Your task to perform on an android device: make emails show in primary in the gmail app Image 0: 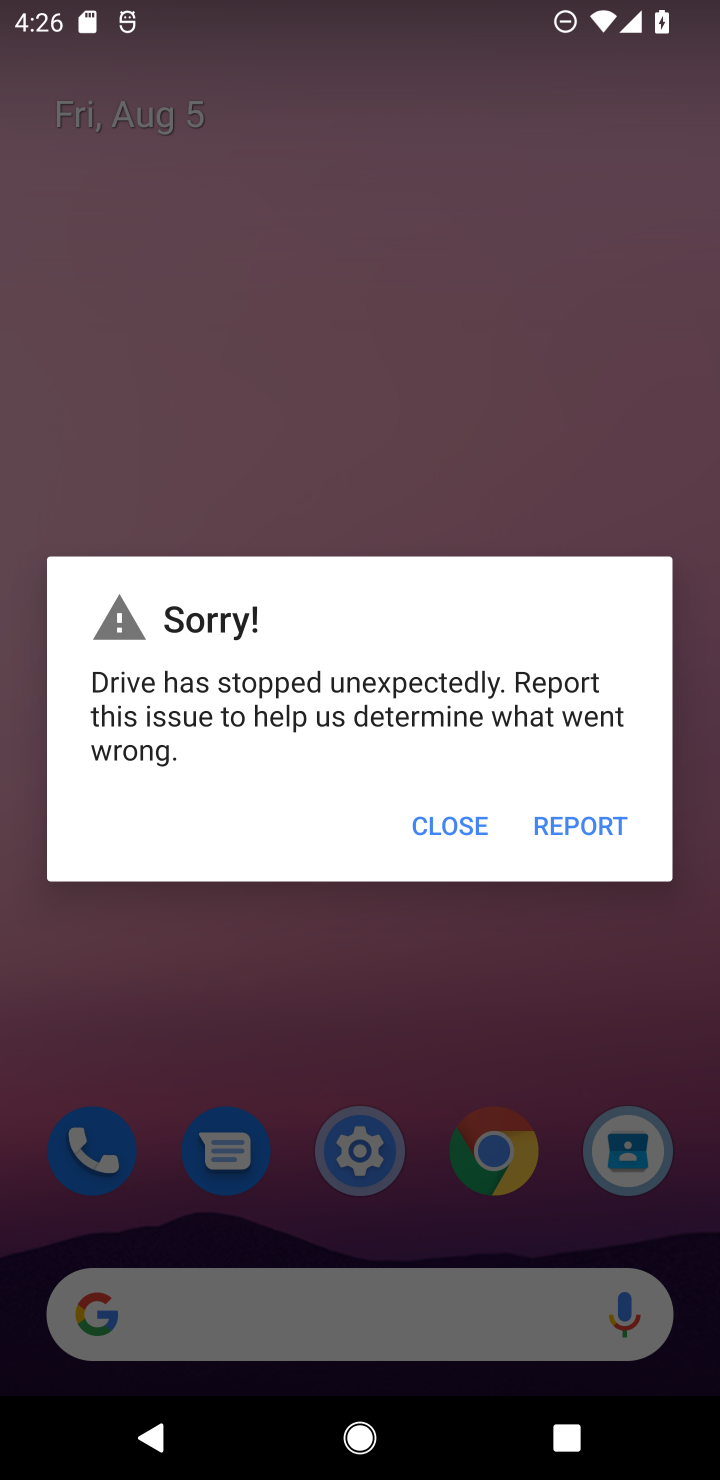
Step 0: press home button
Your task to perform on an android device: make emails show in primary in the gmail app Image 1: 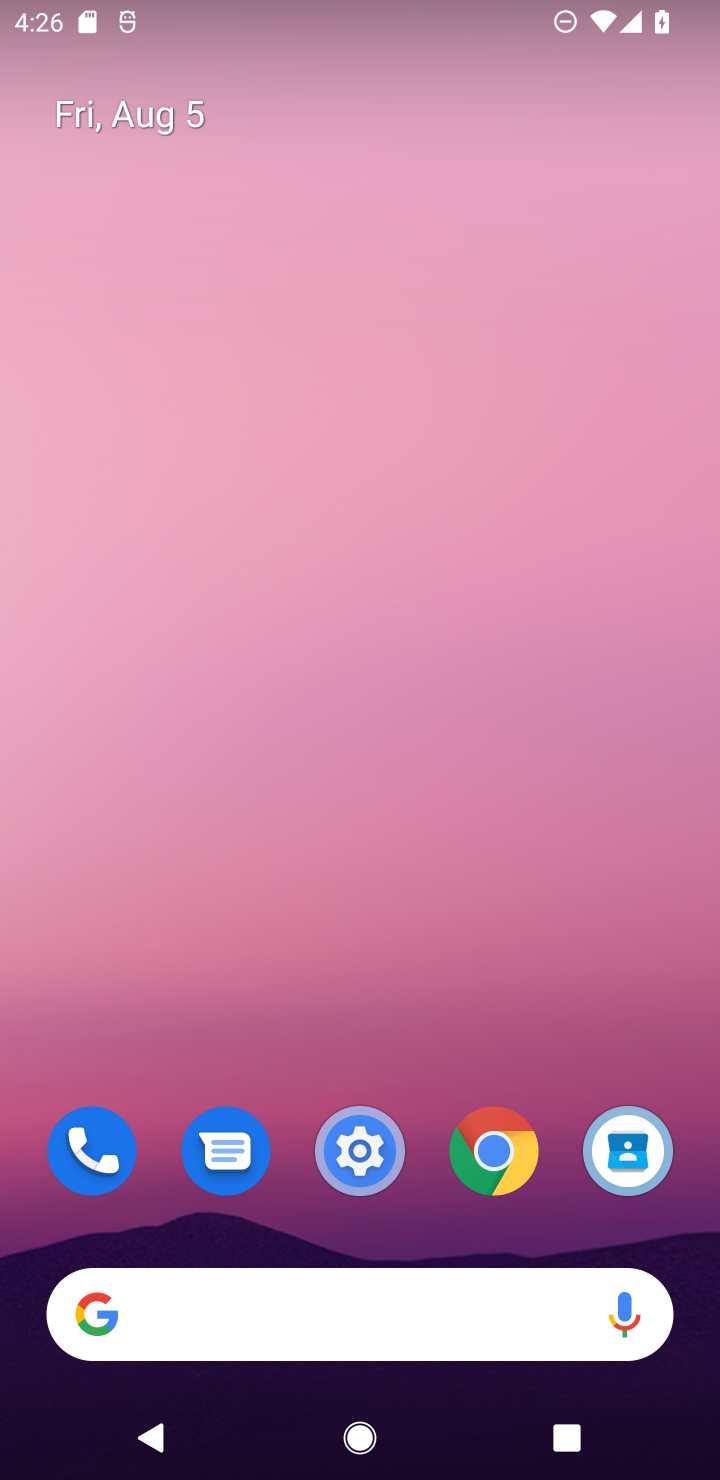
Step 1: drag from (421, 1033) to (457, 77)
Your task to perform on an android device: make emails show in primary in the gmail app Image 2: 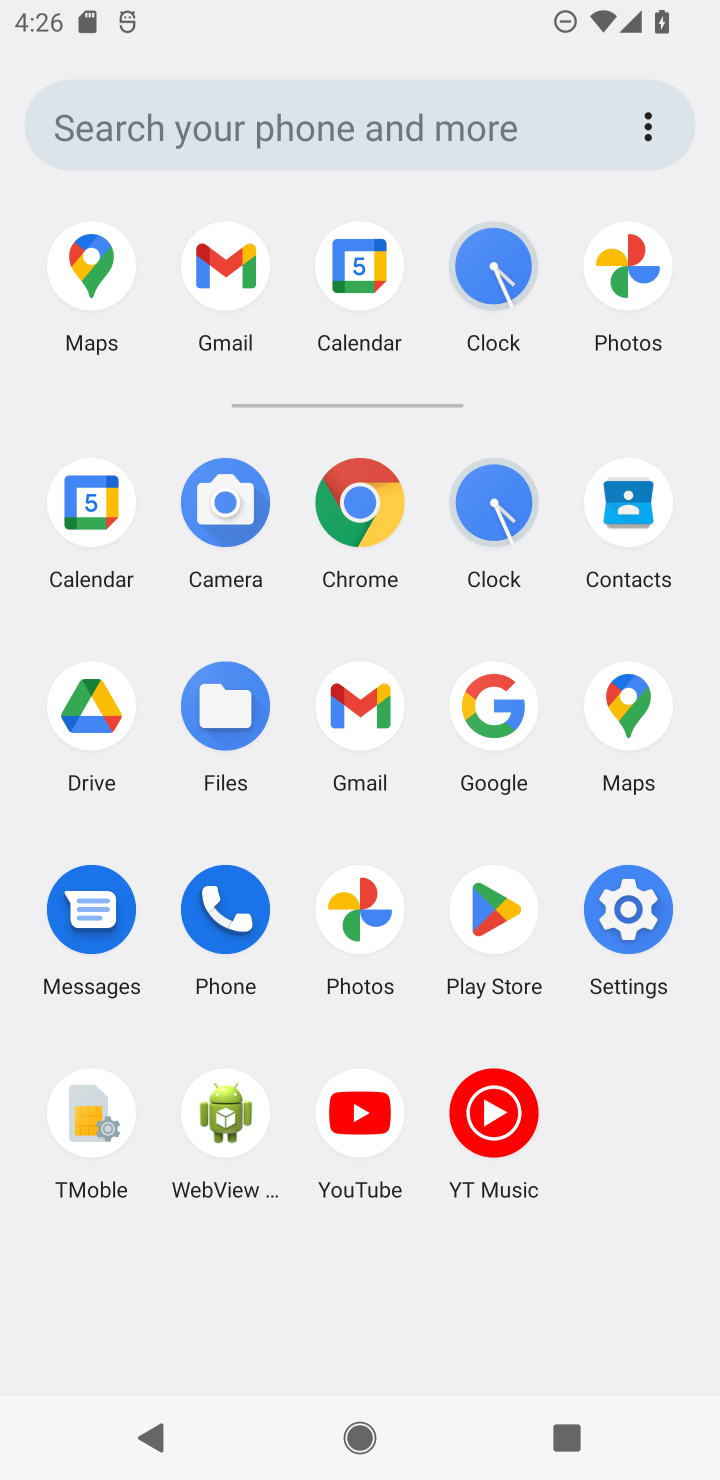
Step 2: click (222, 261)
Your task to perform on an android device: make emails show in primary in the gmail app Image 3: 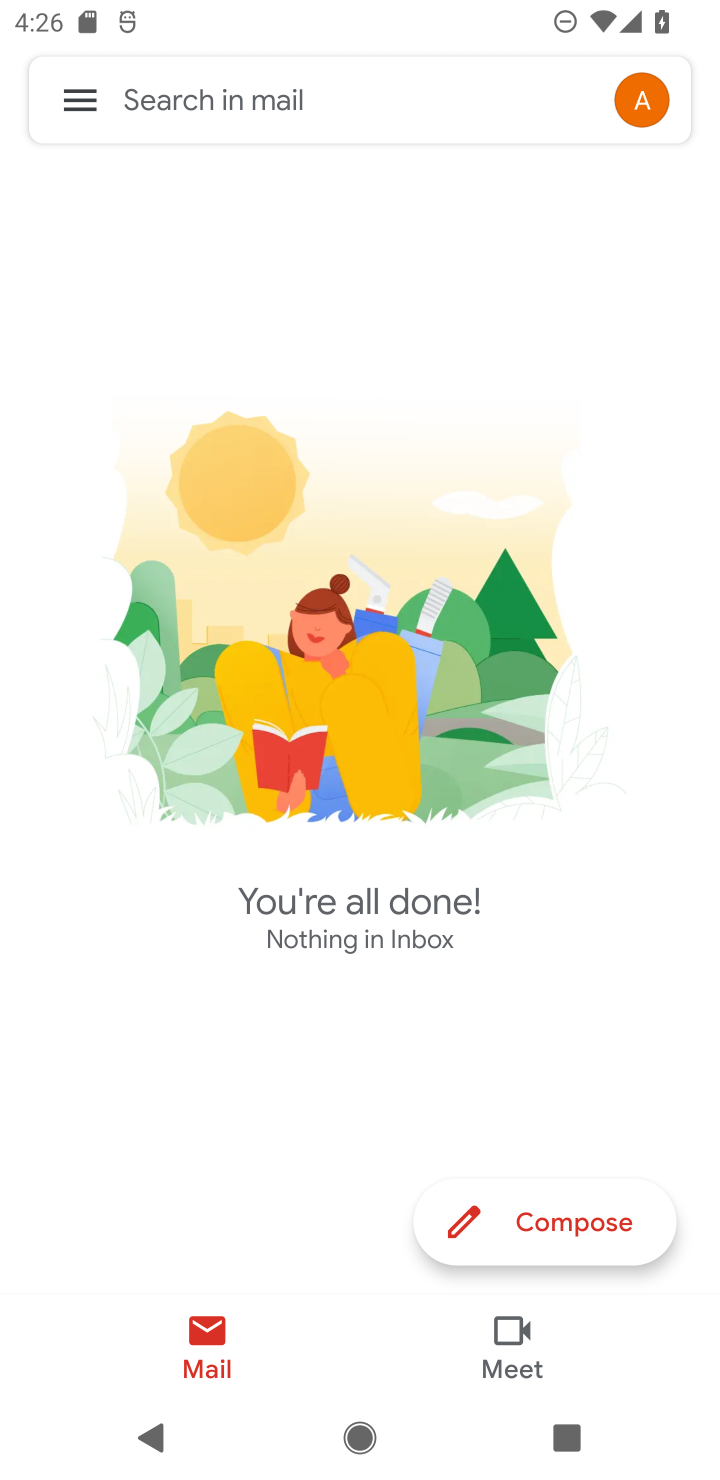
Step 3: click (69, 111)
Your task to perform on an android device: make emails show in primary in the gmail app Image 4: 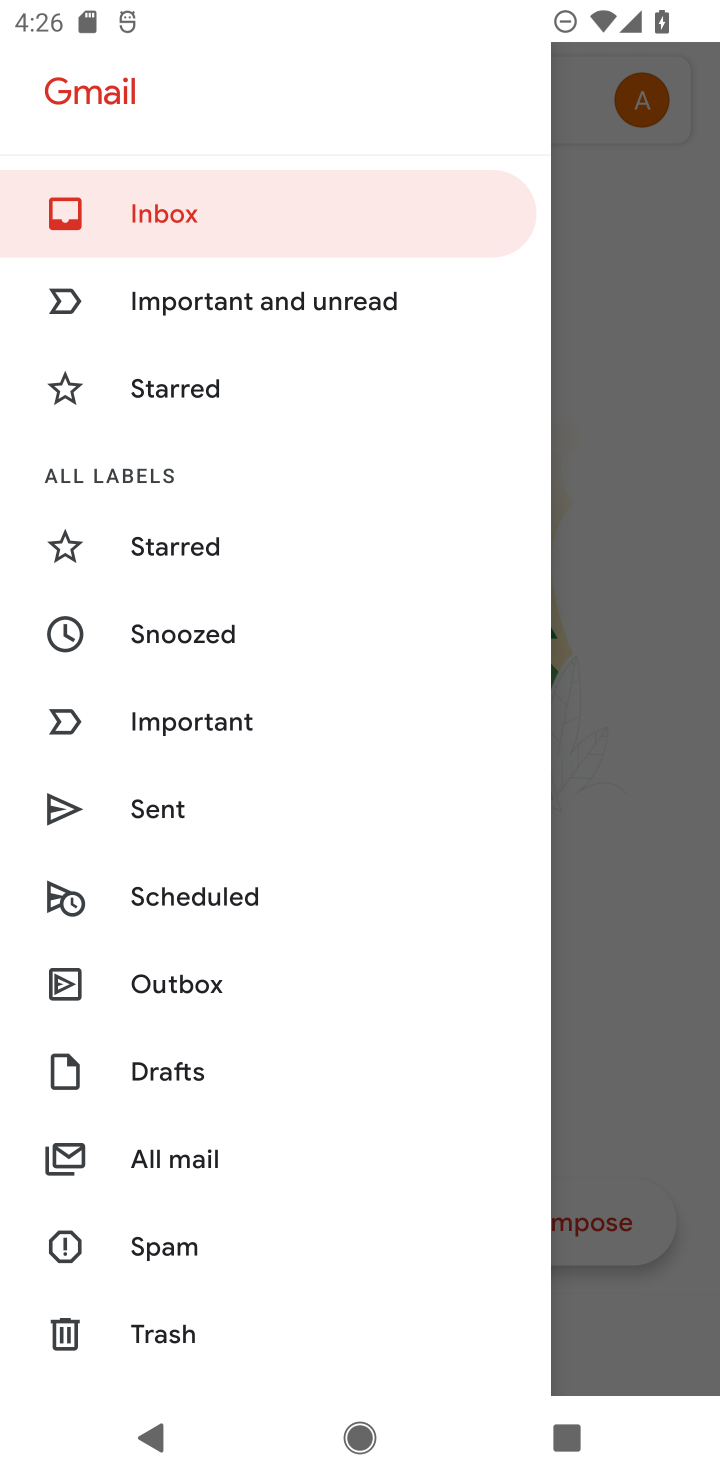
Step 4: drag from (233, 1201) to (229, 426)
Your task to perform on an android device: make emails show in primary in the gmail app Image 5: 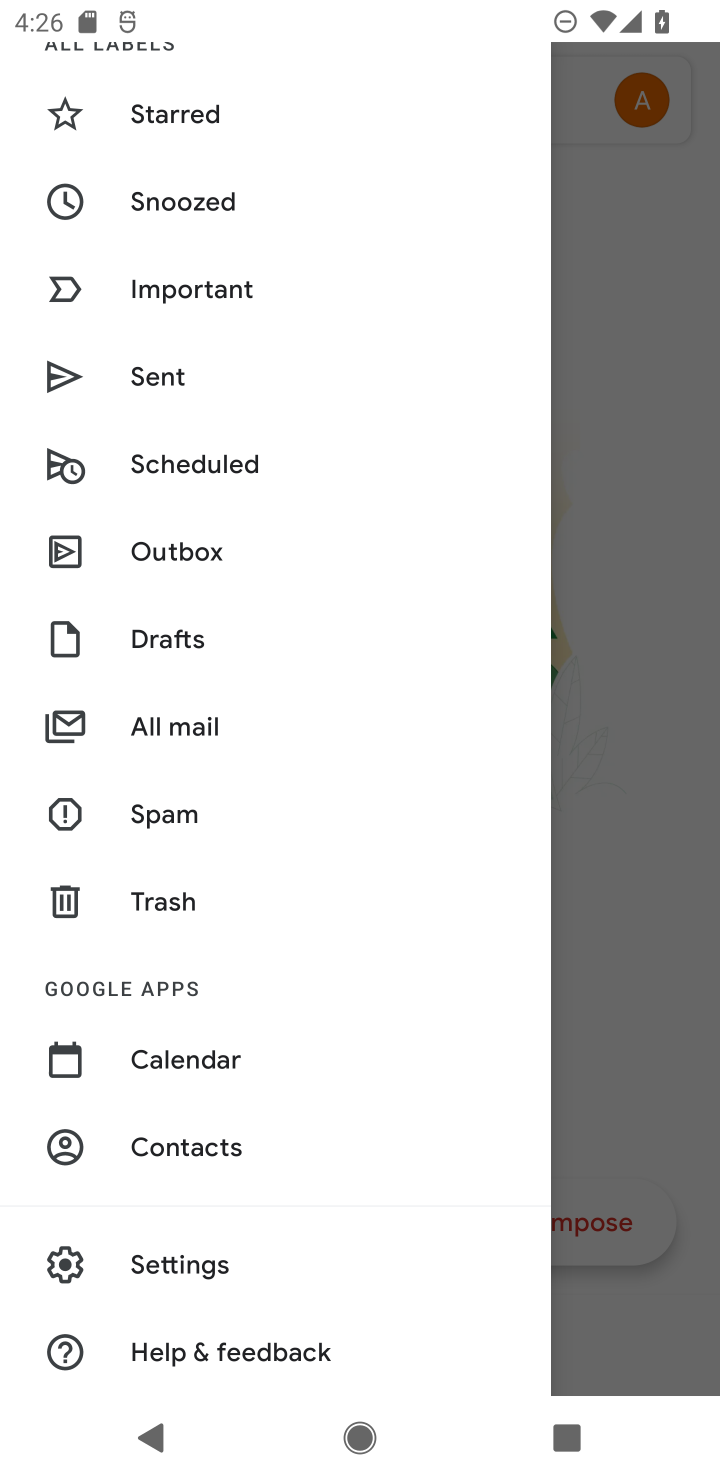
Step 5: click (141, 1258)
Your task to perform on an android device: make emails show in primary in the gmail app Image 6: 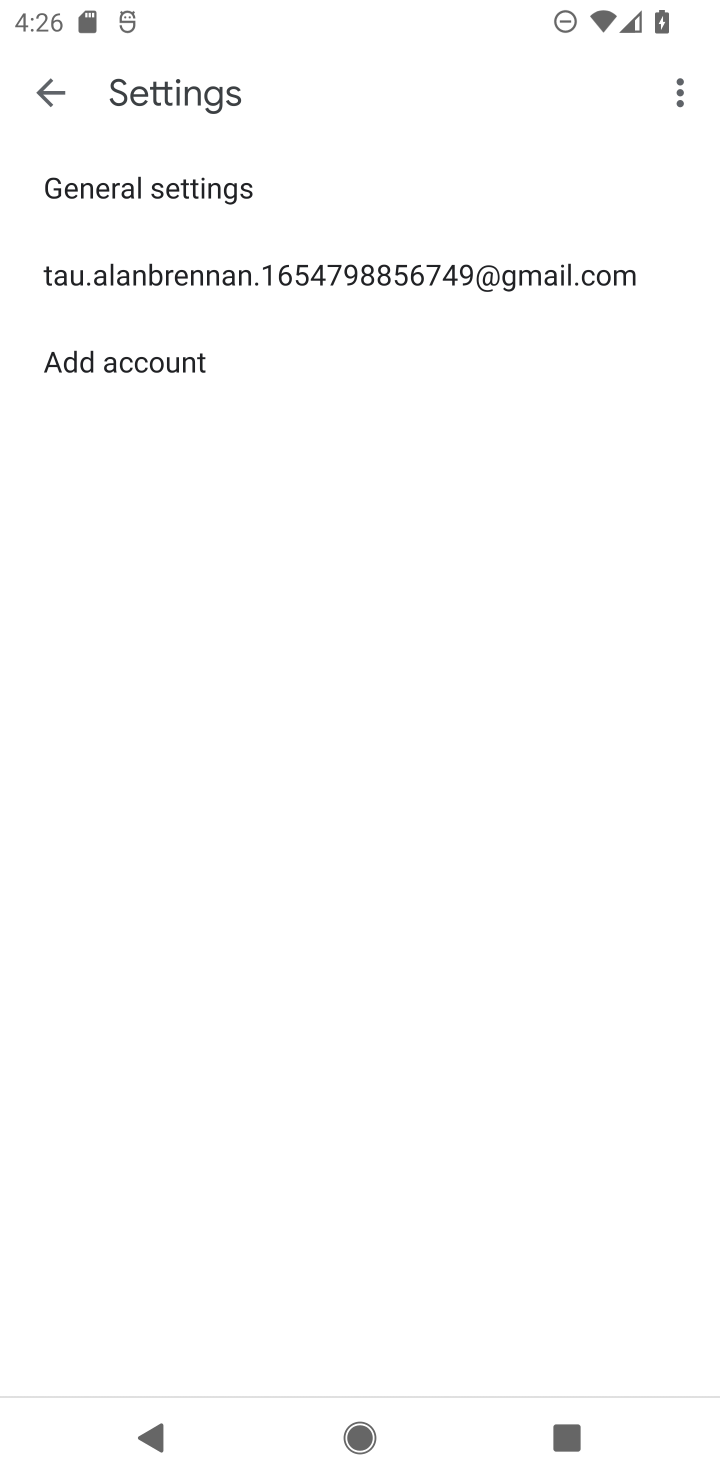
Step 6: click (408, 290)
Your task to perform on an android device: make emails show in primary in the gmail app Image 7: 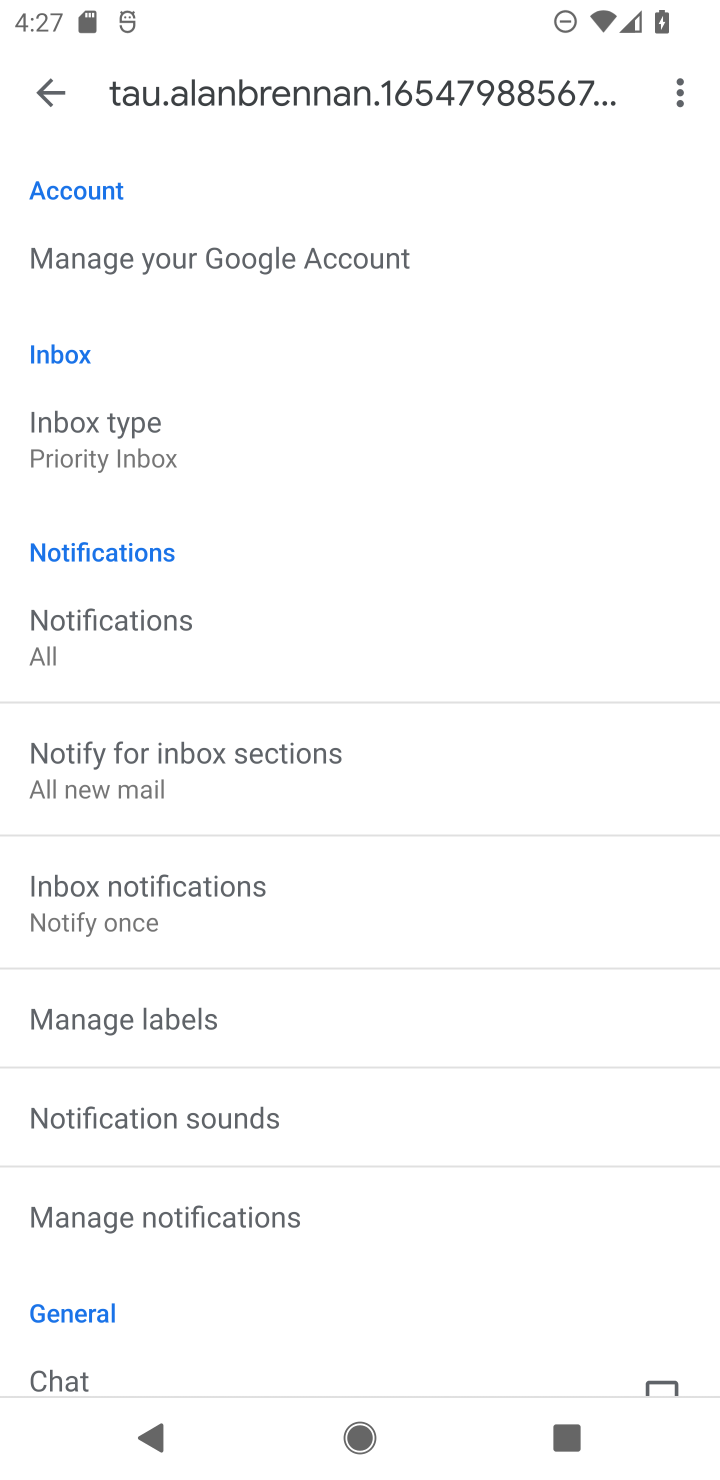
Step 7: click (79, 457)
Your task to perform on an android device: make emails show in primary in the gmail app Image 8: 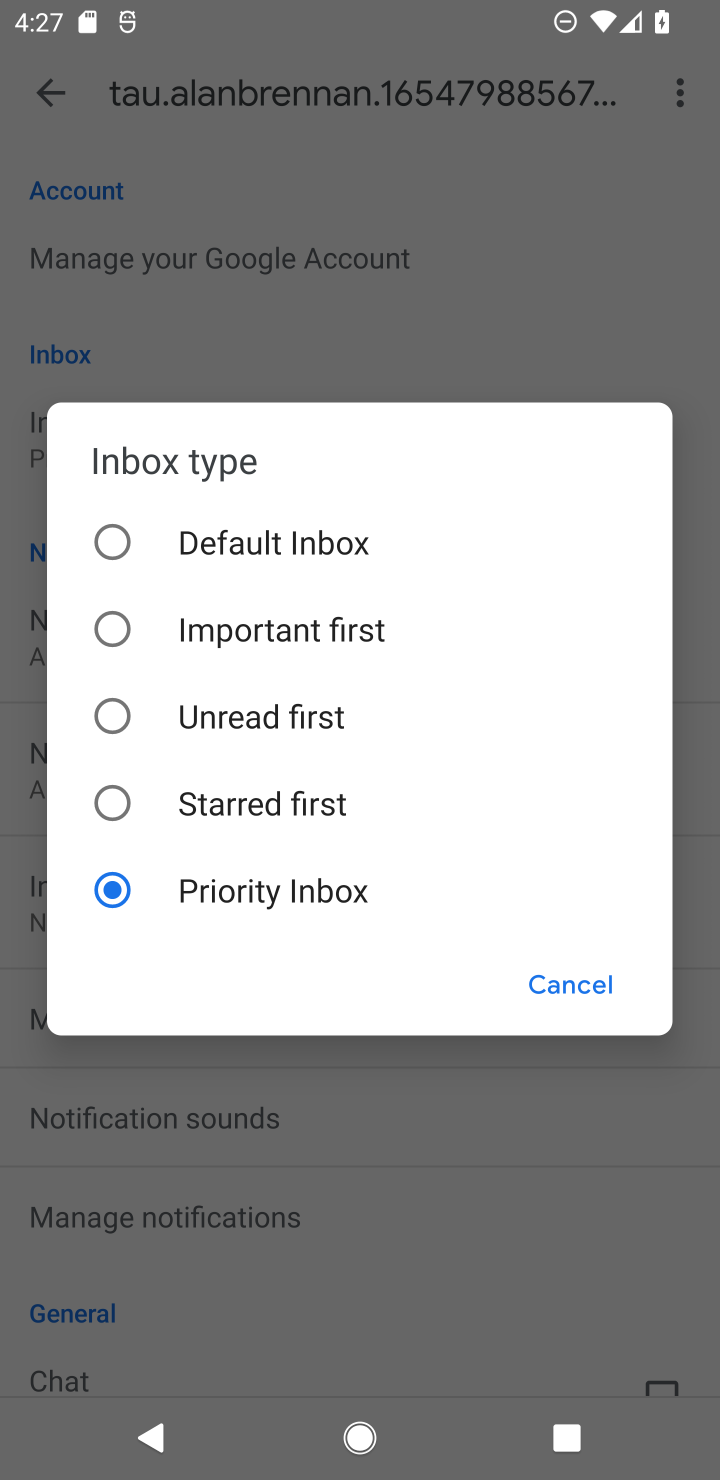
Step 8: click (118, 529)
Your task to perform on an android device: make emails show in primary in the gmail app Image 9: 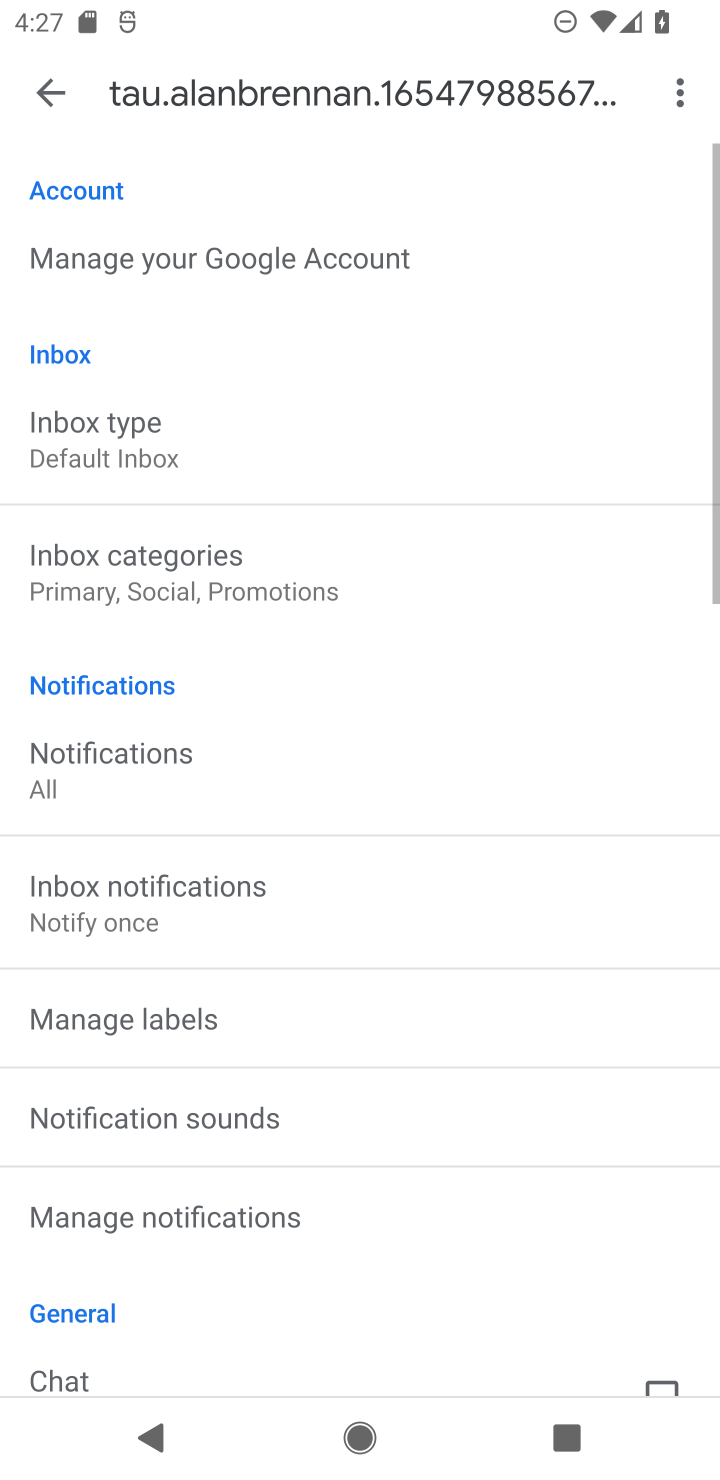
Step 9: task complete